Your task to perform on an android device: set the stopwatch Image 0: 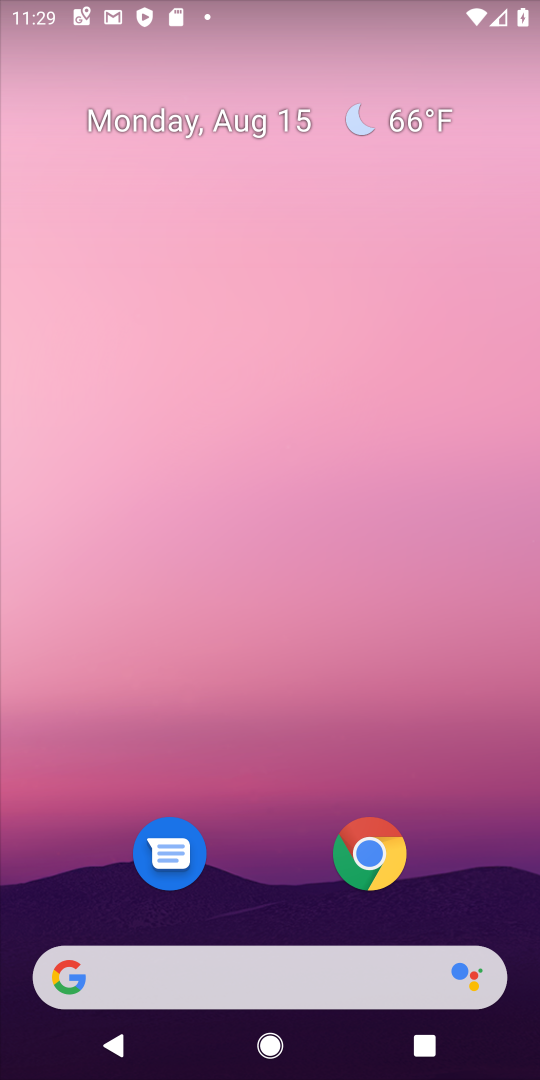
Step 0: drag from (272, 905) to (297, 265)
Your task to perform on an android device: set the stopwatch Image 1: 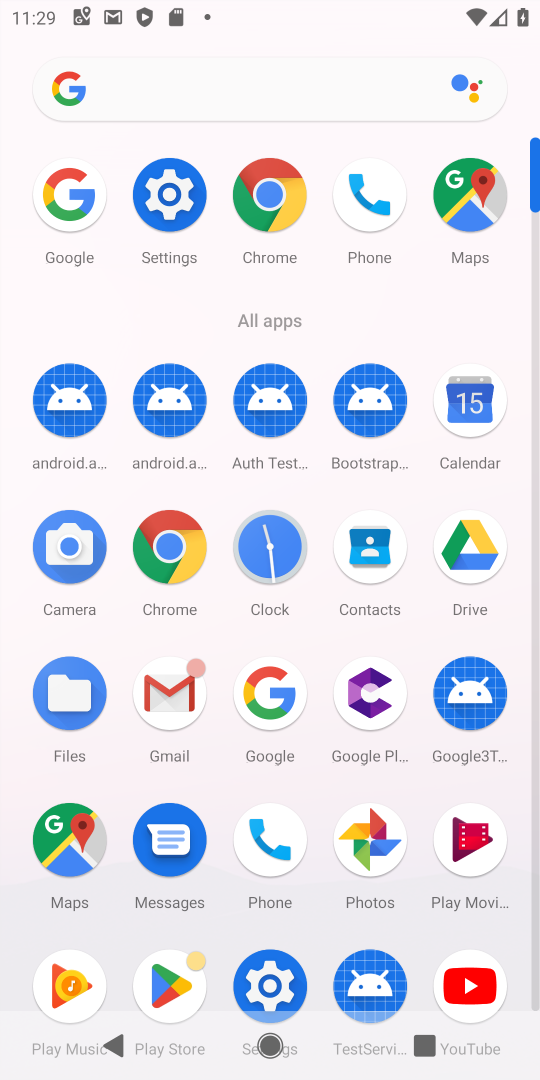
Step 1: click (253, 570)
Your task to perform on an android device: set the stopwatch Image 2: 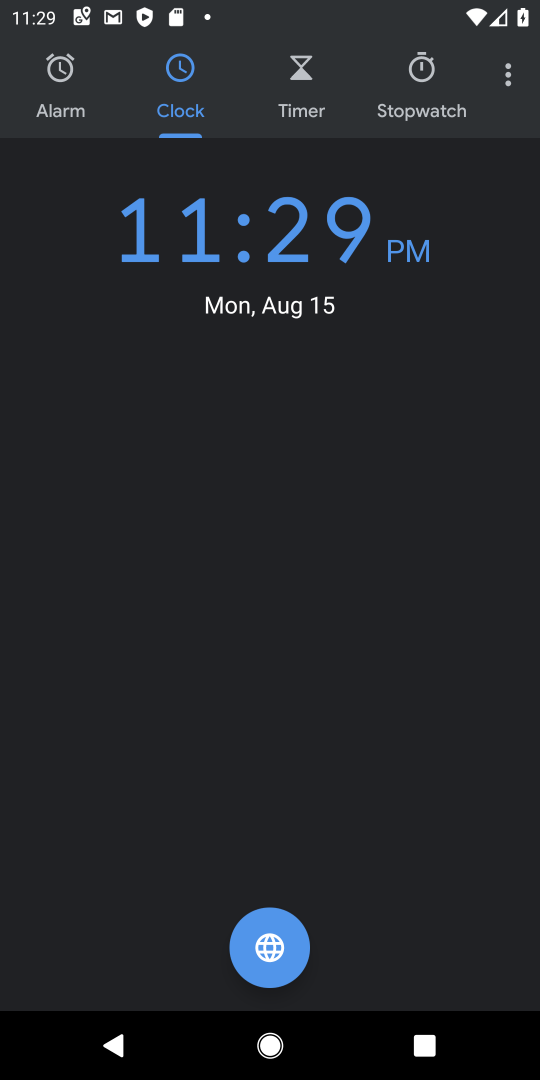
Step 2: click (397, 106)
Your task to perform on an android device: set the stopwatch Image 3: 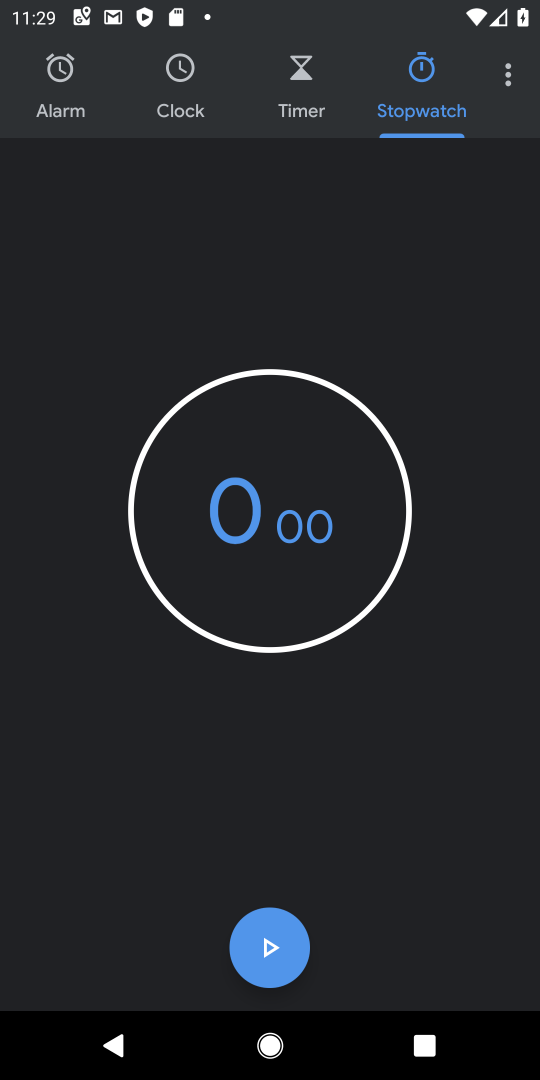
Step 3: click (261, 958)
Your task to perform on an android device: set the stopwatch Image 4: 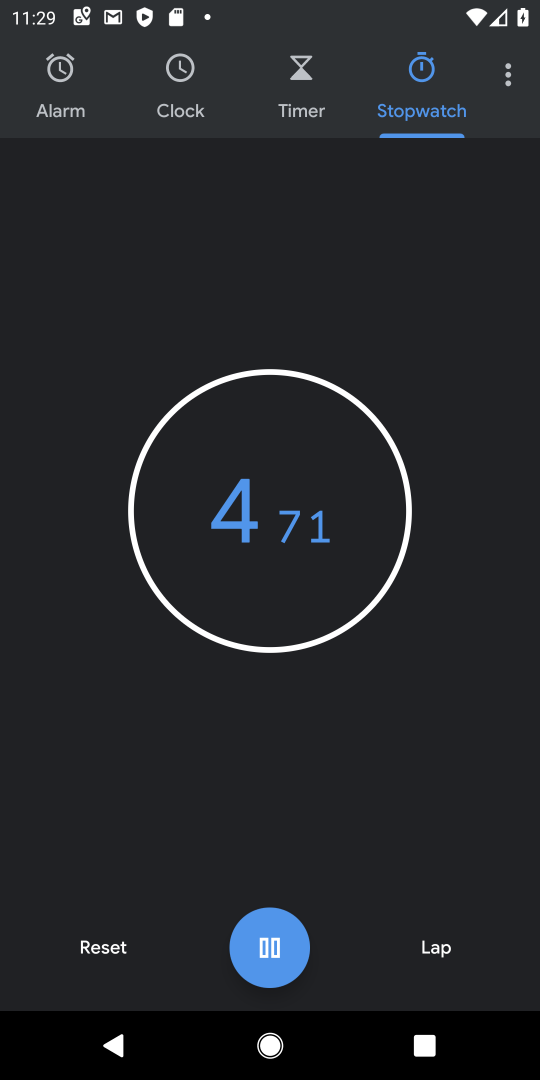
Step 4: click (270, 954)
Your task to perform on an android device: set the stopwatch Image 5: 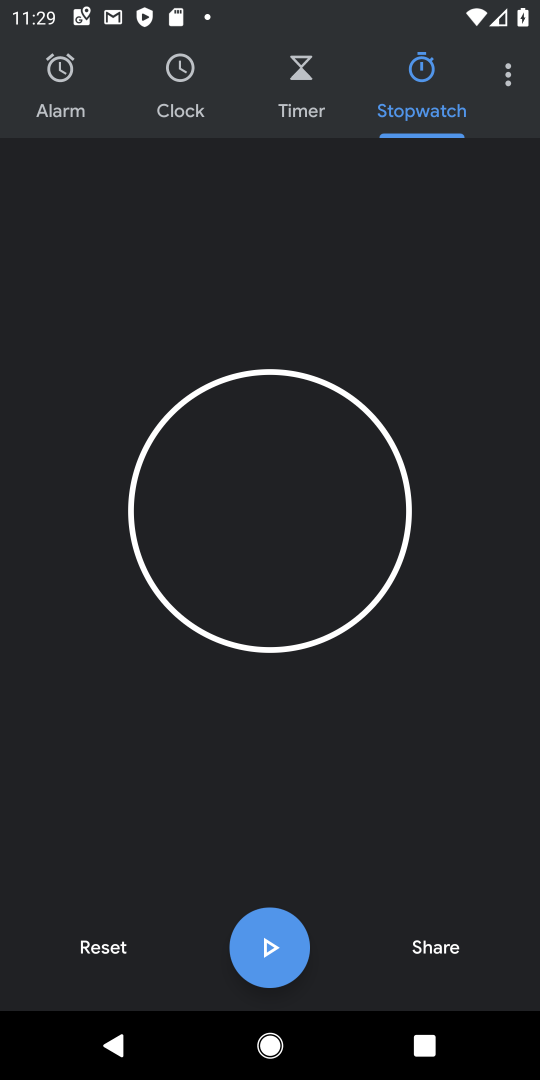
Step 5: task complete